Your task to perform on an android device: clear history in the chrome app Image 0: 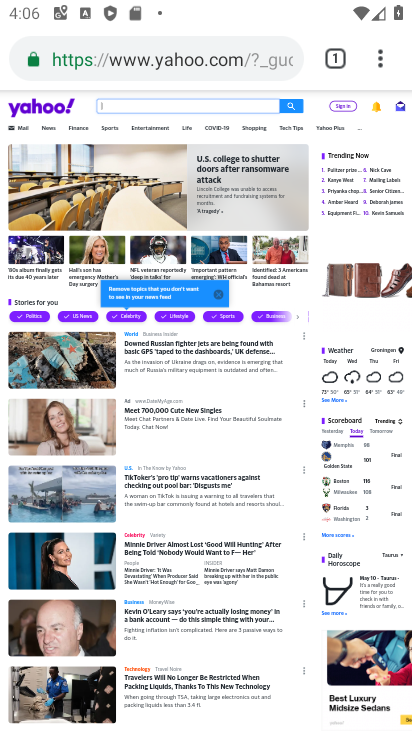
Step 0: click (384, 72)
Your task to perform on an android device: clear history in the chrome app Image 1: 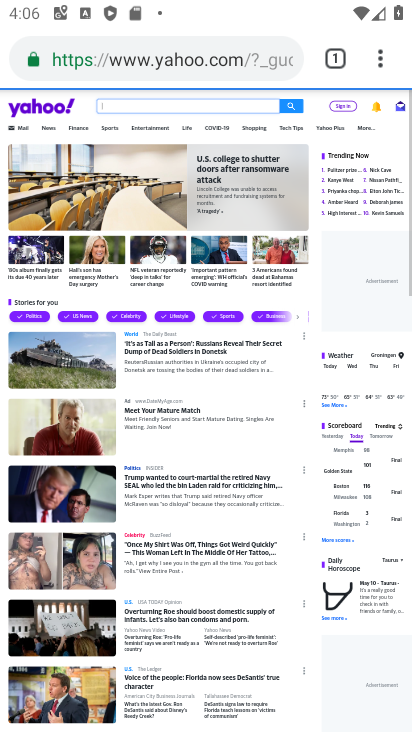
Step 1: click (377, 61)
Your task to perform on an android device: clear history in the chrome app Image 2: 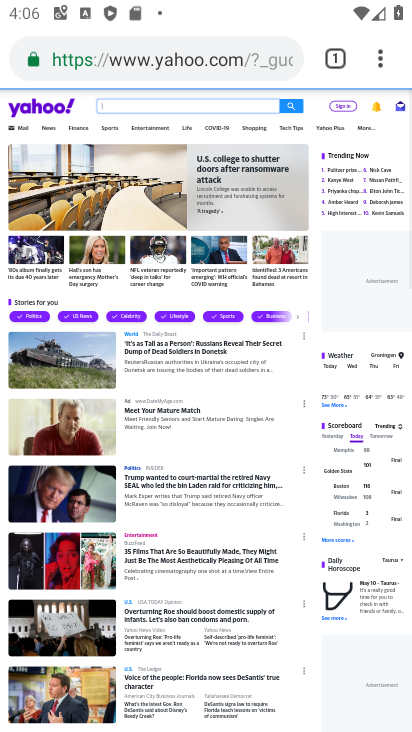
Step 2: click (385, 77)
Your task to perform on an android device: clear history in the chrome app Image 3: 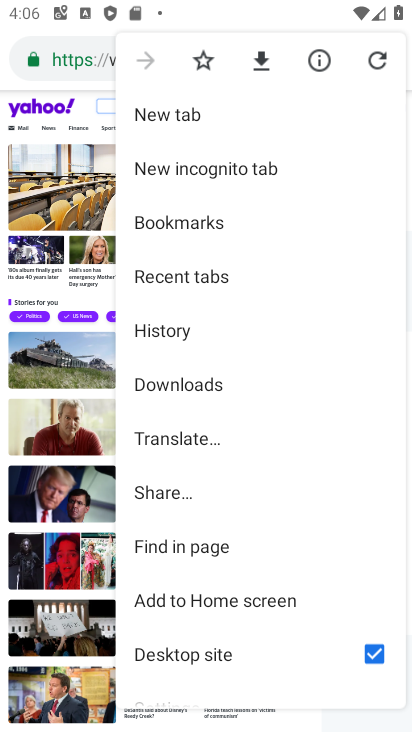
Step 3: click (212, 336)
Your task to perform on an android device: clear history in the chrome app Image 4: 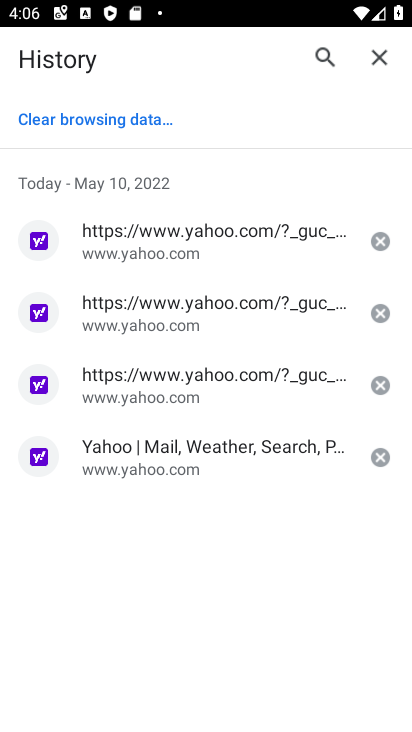
Step 4: click (82, 120)
Your task to perform on an android device: clear history in the chrome app Image 5: 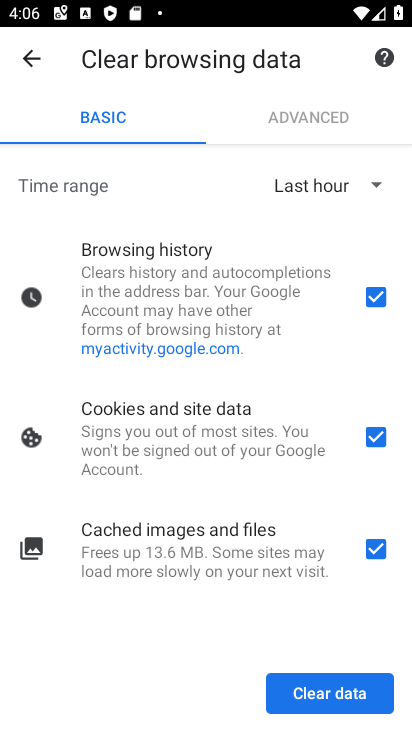
Step 5: click (341, 689)
Your task to perform on an android device: clear history in the chrome app Image 6: 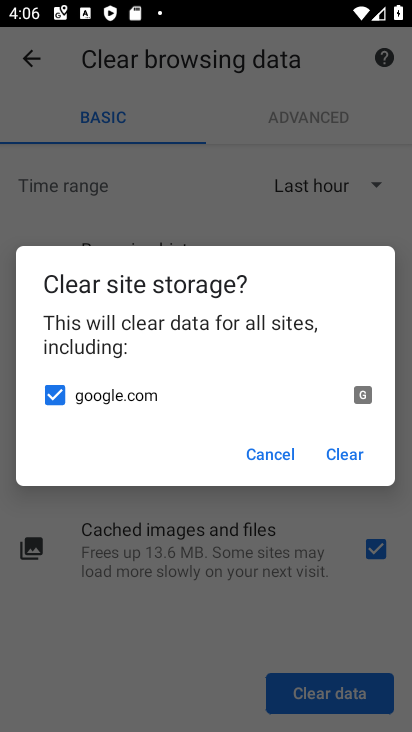
Step 6: click (334, 463)
Your task to perform on an android device: clear history in the chrome app Image 7: 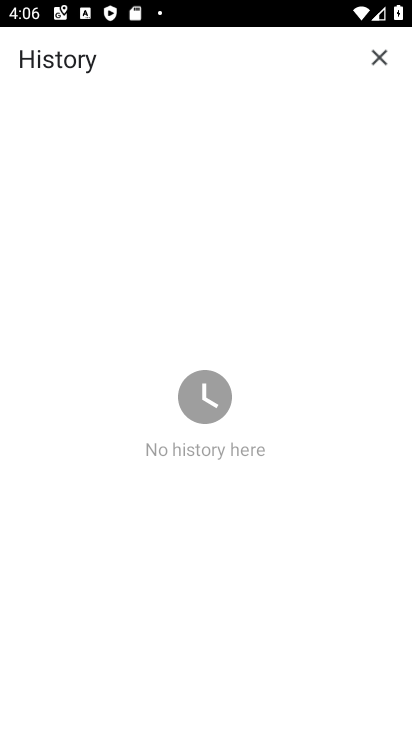
Step 7: task complete